Your task to perform on an android device: toggle notifications settings in the gmail app Image 0: 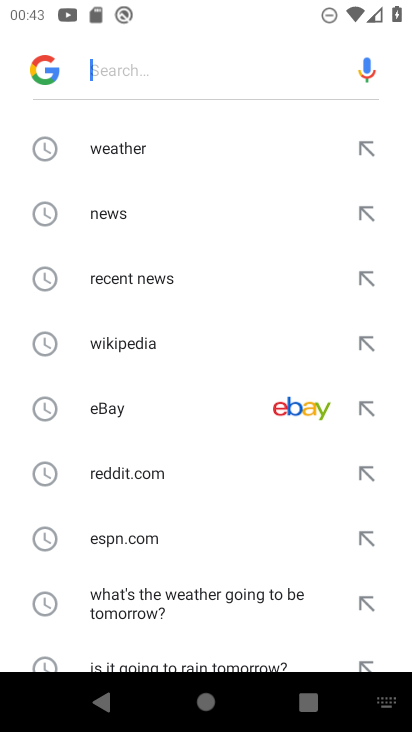
Step 0: press home button
Your task to perform on an android device: toggle notifications settings in the gmail app Image 1: 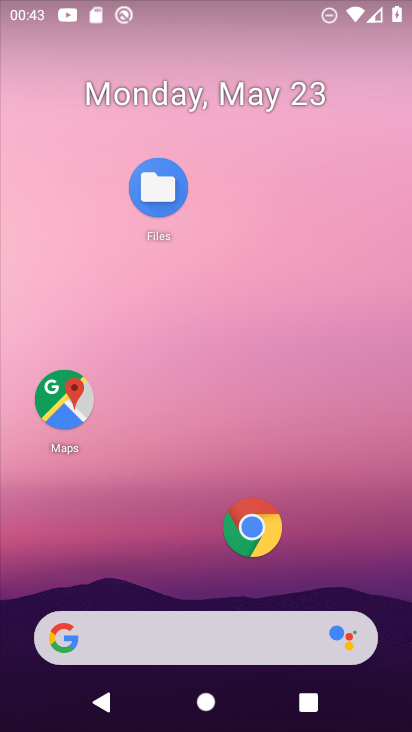
Step 1: drag from (301, 473) to (182, 13)
Your task to perform on an android device: toggle notifications settings in the gmail app Image 2: 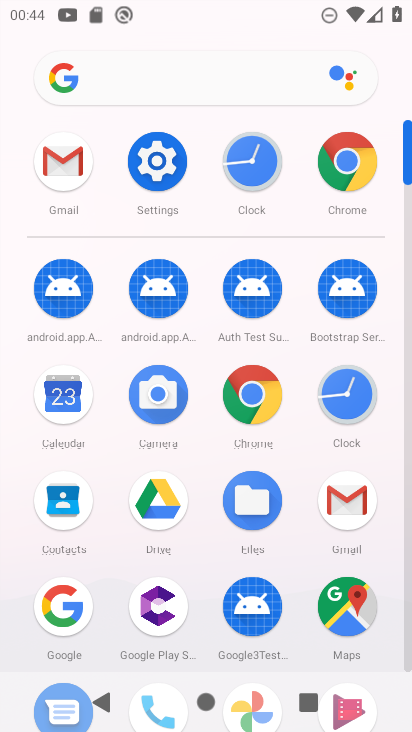
Step 2: click (55, 170)
Your task to perform on an android device: toggle notifications settings in the gmail app Image 3: 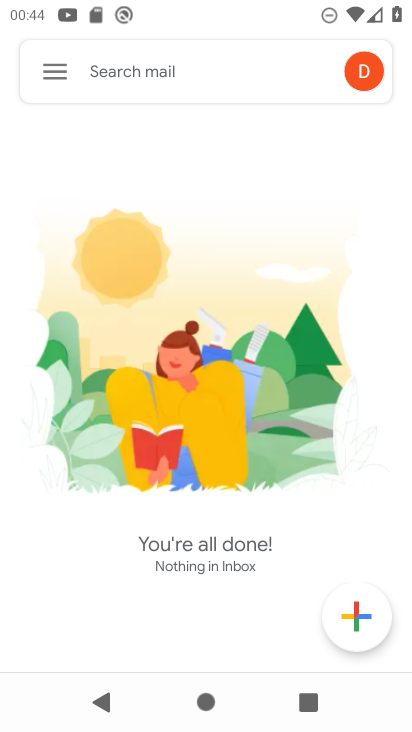
Step 3: click (63, 75)
Your task to perform on an android device: toggle notifications settings in the gmail app Image 4: 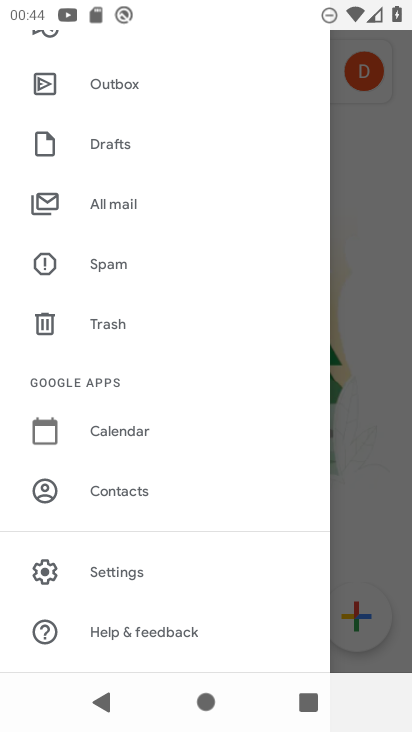
Step 4: click (113, 570)
Your task to perform on an android device: toggle notifications settings in the gmail app Image 5: 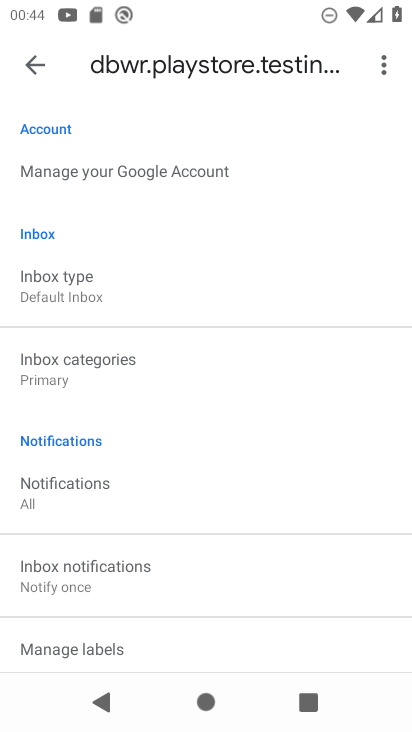
Step 5: click (26, 65)
Your task to perform on an android device: toggle notifications settings in the gmail app Image 6: 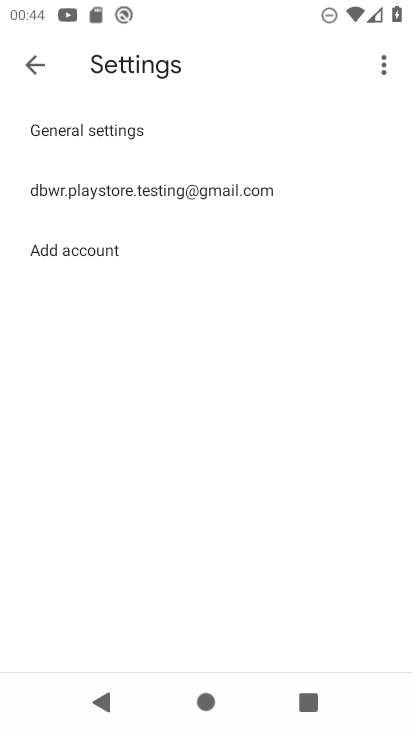
Step 6: click (86, 124)
Your task to perform on an android device: toggle notifications settings in the gmail app Image 7: 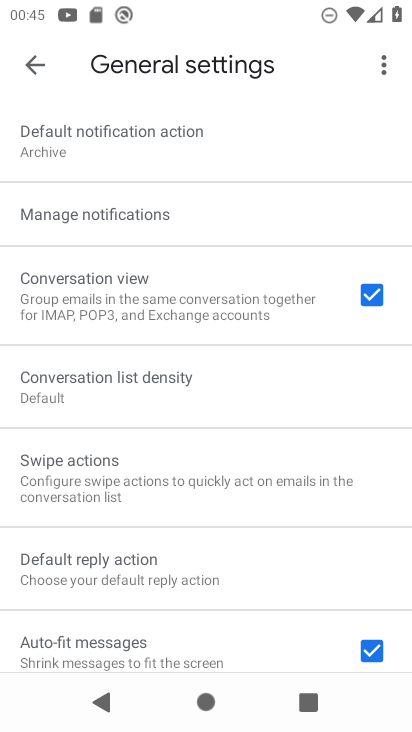
Step 7: click (108, 209)
Your task to perform on an android device: toggle notifications settings in the gmail app Image 8: 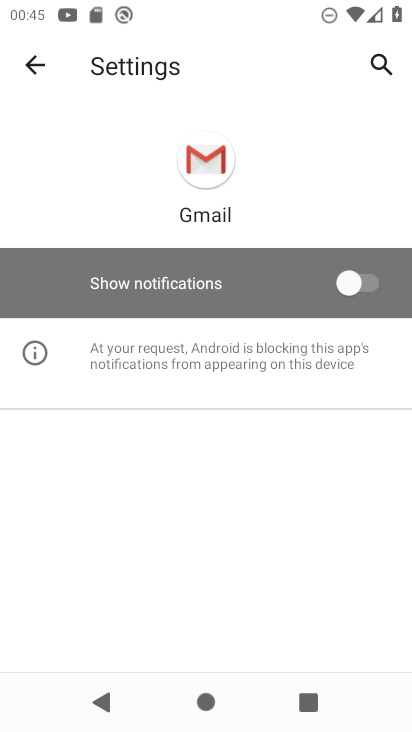
Step 8: click (358, 291)
Your task to perform on an android device: toggle notifications settings in the gmail app Image 9: 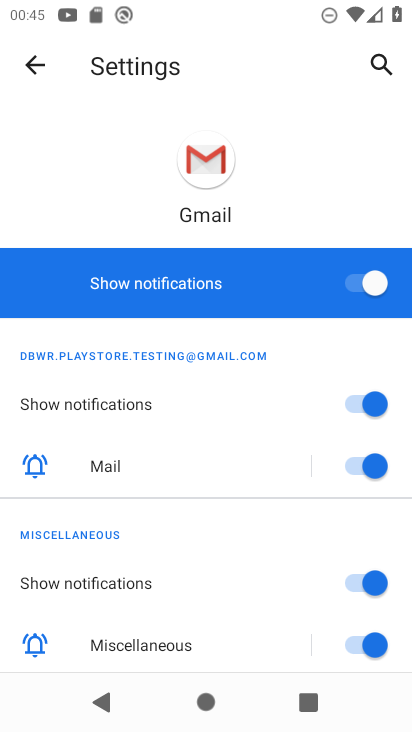
Step 9: task complete